Your task to perform on an android device: Open Amazon Image 0: 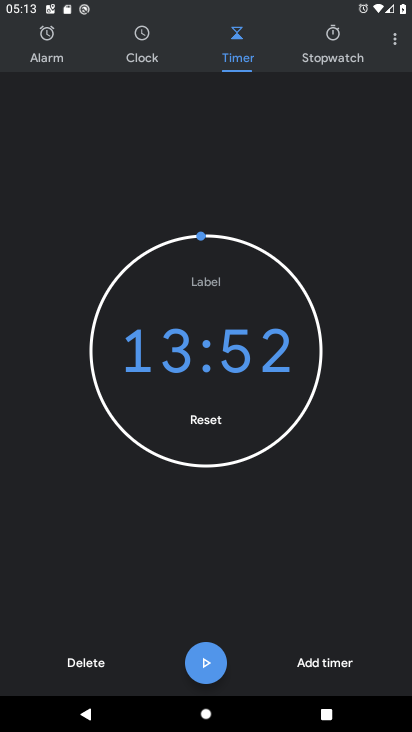
Step 0: press home button
Your task to perform on an android device: Open Amazon Image 1: 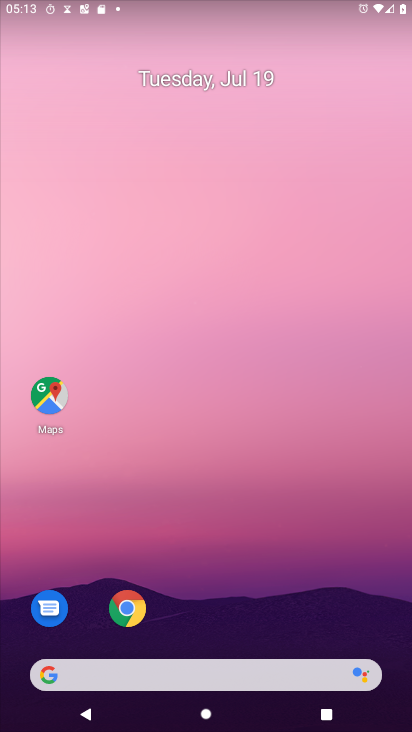
Step 1: click (126, 610)
Your task to perform on an android device: Open Amazon Image 2: 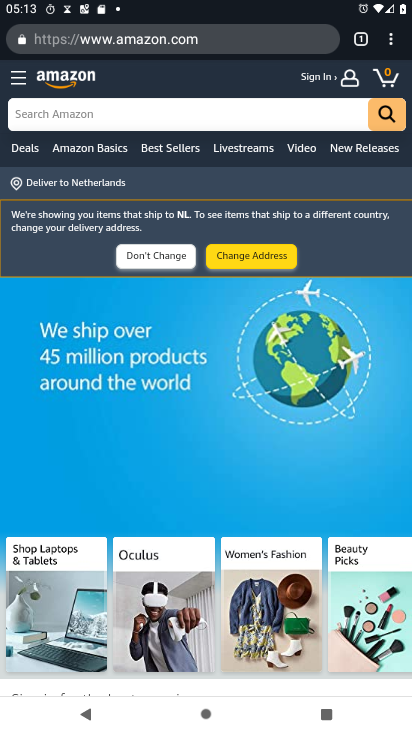
Step 2: task complete